Your task to perform on an android device: delete location history Image 0: 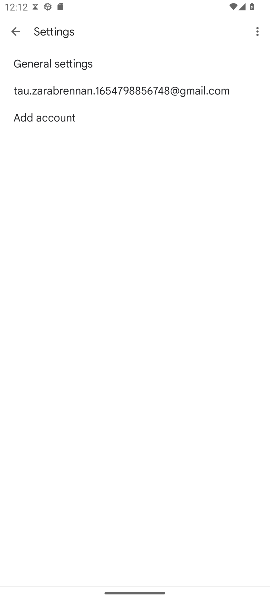
Step 0: press home button
Your task to perform on an android device: delete location history Image 1: 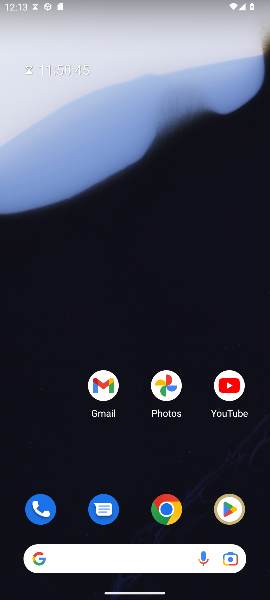
Step 1: drag from (144, 517) to (215, 126)
Your task to perform on an android device: delete location history Image 2: 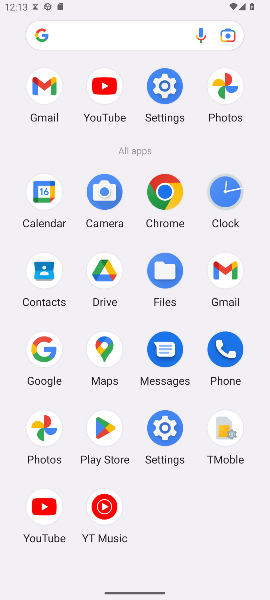
Step 2: click (97, 337)
Your task to perform on an android device: delete location history Image 3: 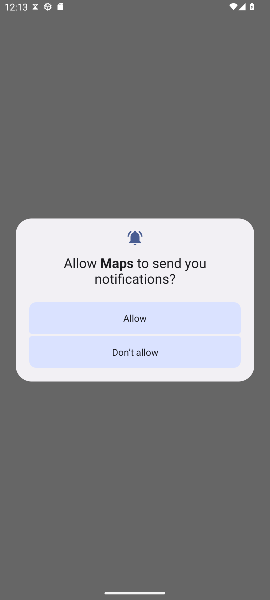
Step 3: click (154, 318)
Your task to perform on an android device: delete location history Image 4: 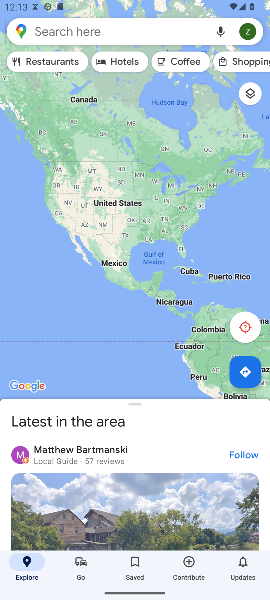
Step 4: click (250, 30)
Your task to perform on an android device: delete location history Image 5: 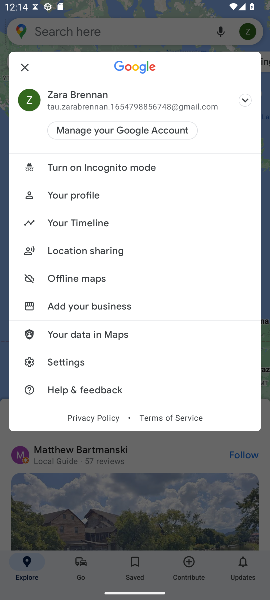
Step 5: click (73, 223)
Your task to perform on an android device: delete location history Image 6: 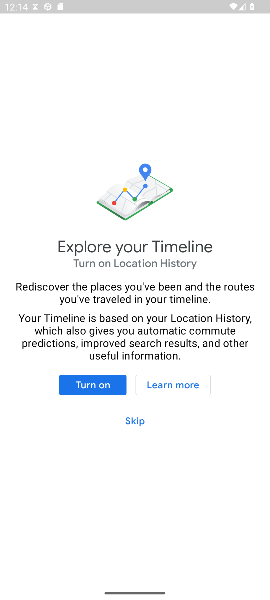
Step 6: click (101, 379)
Your task to perform on an android device: delete location history Image 7: 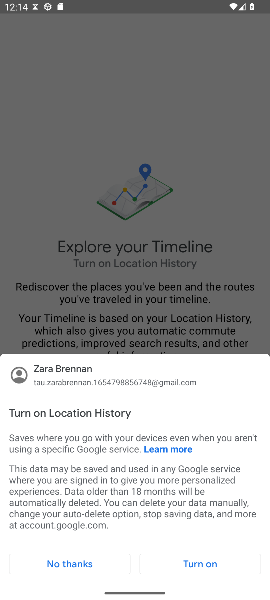
Step 7: click (206, 564)
Your task to perform on an android device: delete location history Image 8: 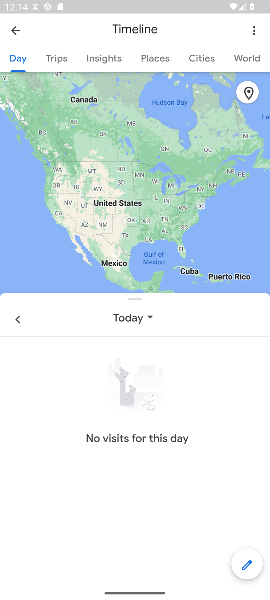
Step 8: click (252, 31)
Your task to perform on an android device: delete location history Image 9: 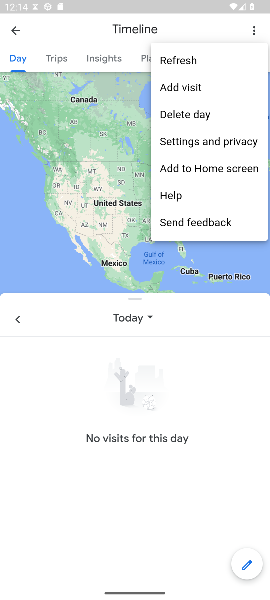
Step 9: click (213, 147)
Your task to perform on an android device: delete location history Image 10: 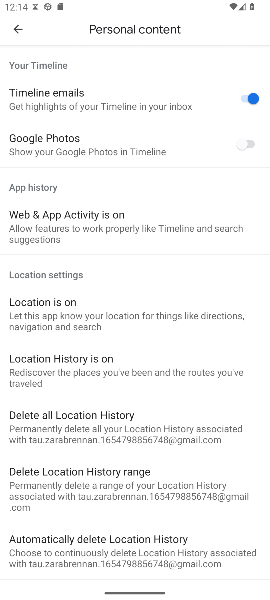
Step 10: drag from (142, 513) to (176, 370)
Your task to perform on an android device: delete location history Image 11: 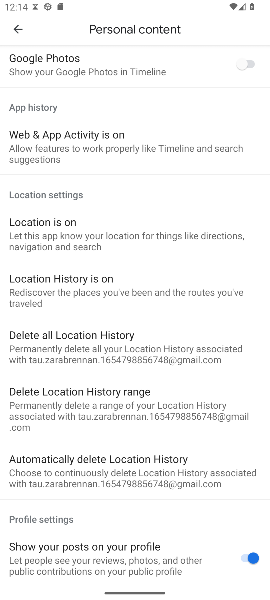
Step 11: click (97, 335)
Your task to perform on an android device: delete location history Image 12: 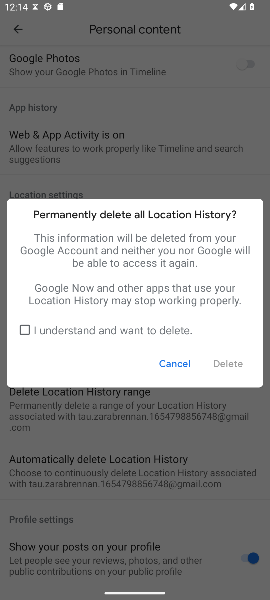
Step 12: click (24, 328)
Your task to perform on an android device: delete location history Image 13: 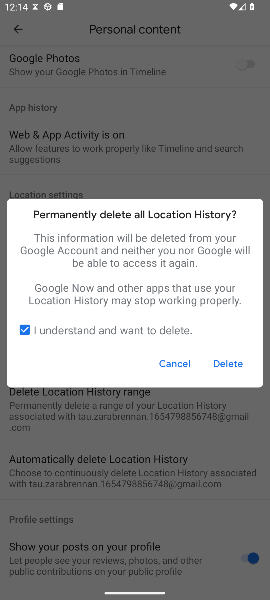
Step 13: click (233, 359)
Your task to perform on an android device: delete location history Image 14: 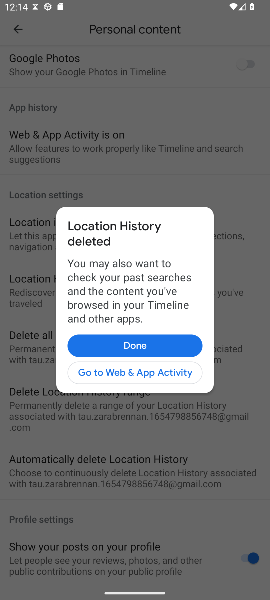
Step 14: click (146, 350)
Your task to perform on an android device: delete location history Image 15: 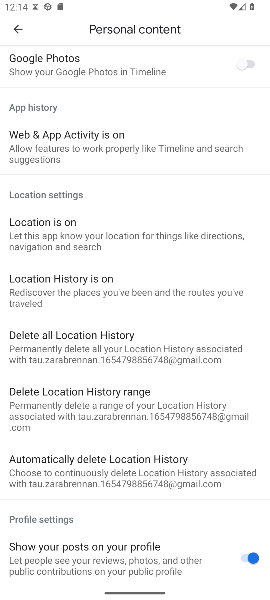
Step 15: task complete